Your task to perform on an android device: turn on improve location accuracy Image 0: 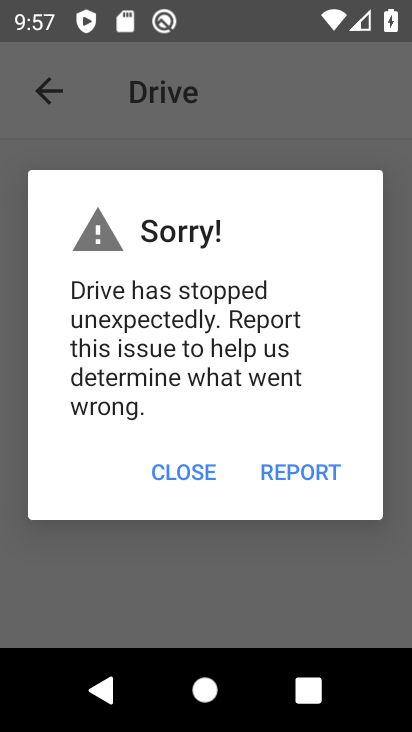
Step 0: press home button
Your task to perform on an android device: turn on improve location accuracy Image 1: 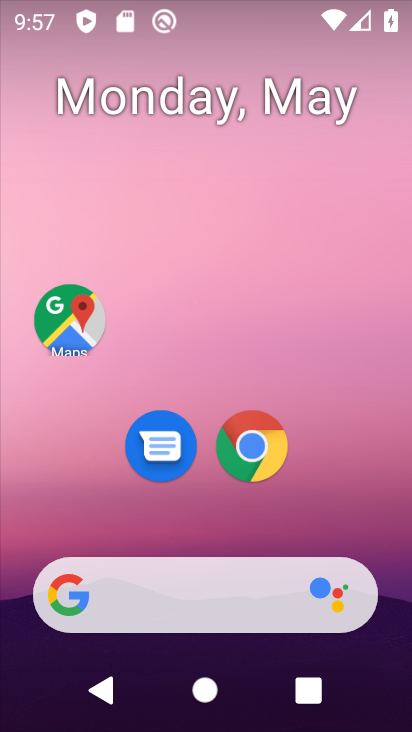
Step 1: drag from (382, 498) to (338, 171)
Your task to perform on an android device: turn on improve location accuracy Image 2: 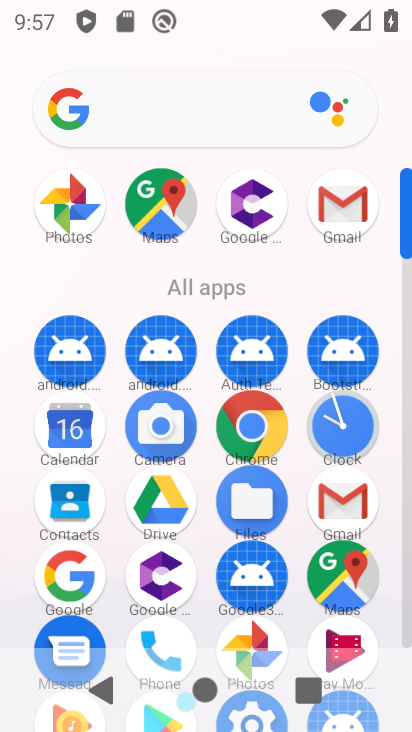
Step 2: drag from (281, 296) to (252, 103)
Your task to perform on an android device: turn on improve location accuracy Image 3: 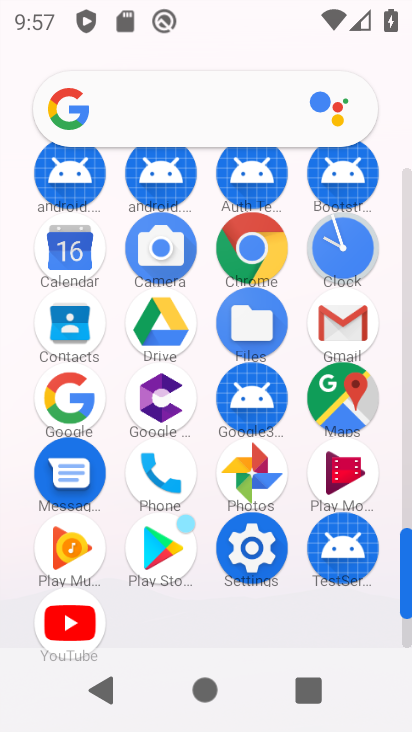
Step 3: click (246, 548)
Your task to perform on an android device: turn on improve location accuracy Image 4: 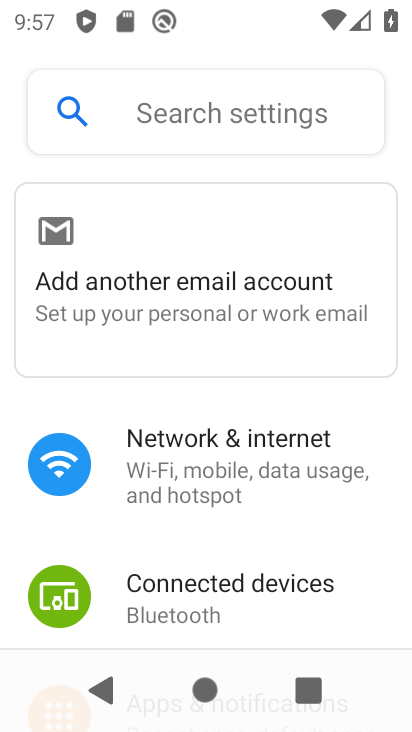
Step 4: drag from (263, 570) to (216, 297)
Your task to perform on an android device: turn on improve location accuracy Image 5: 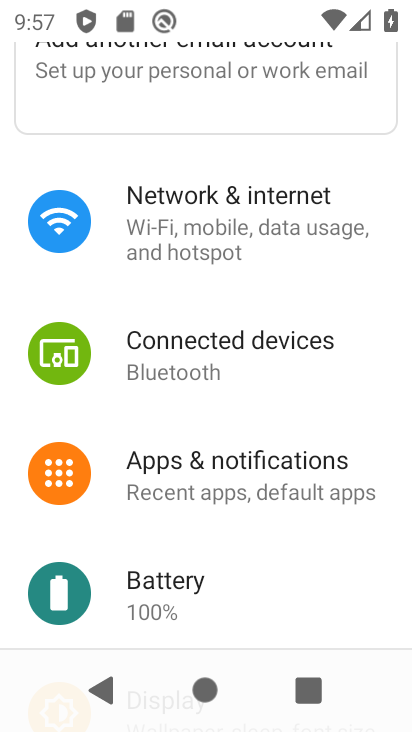
Step 5: drag from (257, 530) to (212, 102)
Your task to perform on an android device: turn on improve location accuracy Image 6: 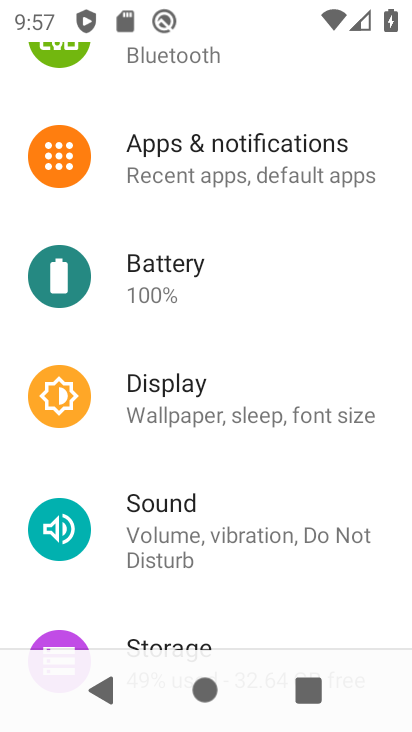
Step 6: drag from (292, 594) to (280, 373)
Your task to perform on an android device: turn on improve location accuracy Image 7: 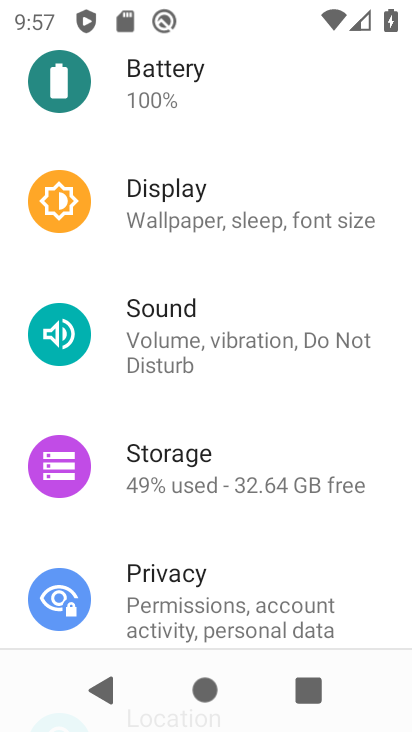
Step 7: click (305, 587)
Your task to perform on an android device: turn on improve location accuracy Image 8: 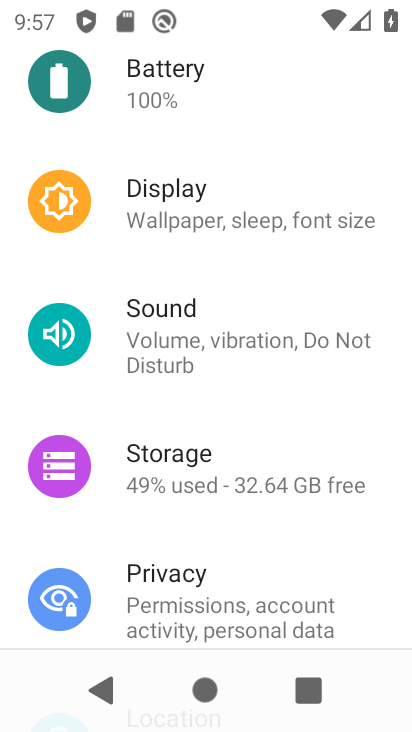
Step 8: drag from (305, 587) to (237, 283)
Your task to perform on an android device: turn on improve location accuracy Image 9: 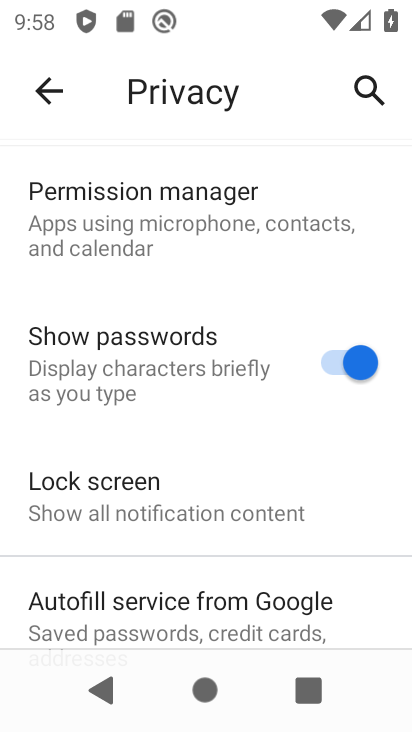
Step 9: click (41, 85)
Your task to perform on an android device: turn on improve location accuracy Image 10: 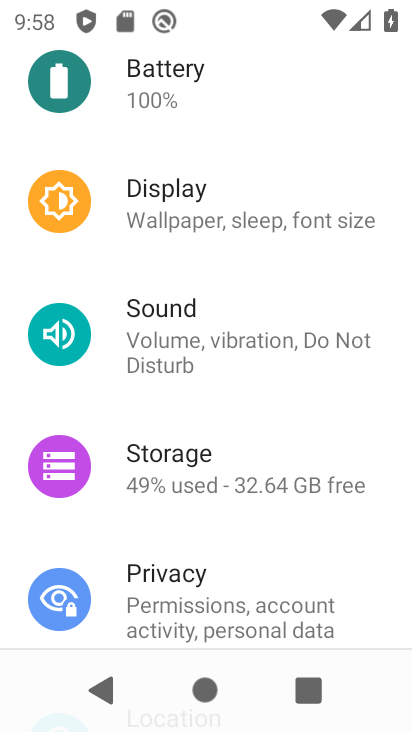
Step 10: drag from (313, 544) to (277, 229)
Your task to perform on an android device: turn on improve location accuracy Image 11: 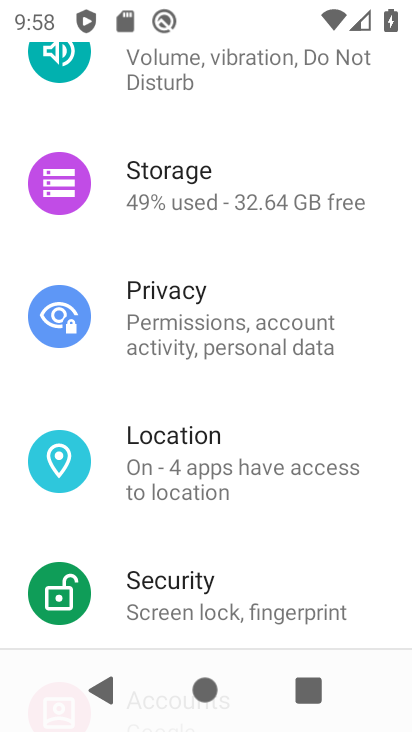
Step 11: click (245, 475)
Your task to perform on an android device: turn on improve location accuracy Image 12: 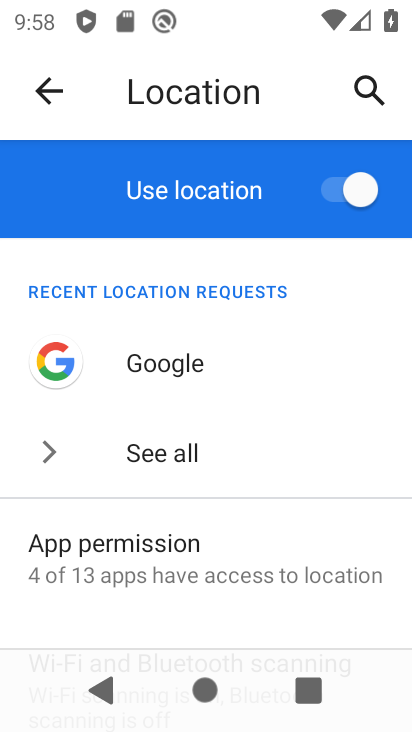
Step 12: drag from (265, 533) to (262, 232)
Your task to perform on an android device: turn on improve location accuracy Image 13: 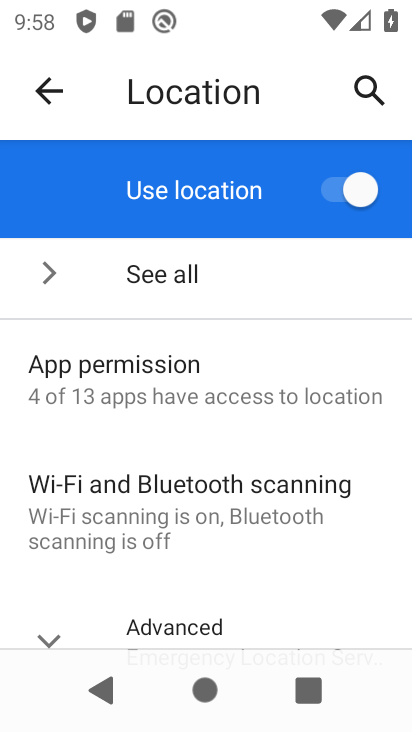
Step 13: click (229, 615)
Your task to perform on an android device: turn on improve location accuracy Image 14: 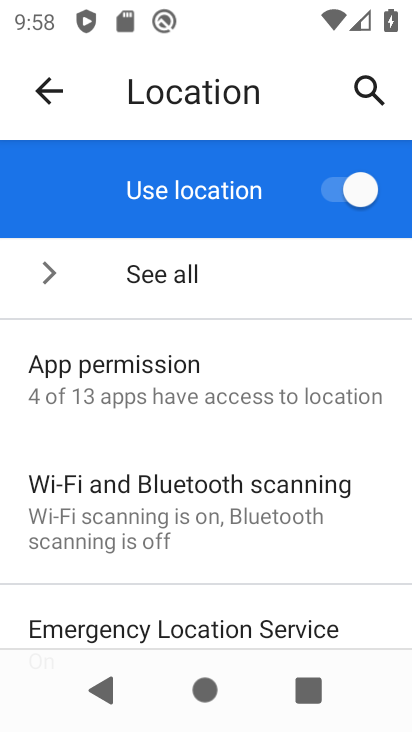
Step 14: drag from (280, 605) to (263, 337)
Your task to perform on an android device: turn on improve location accuracy Image 15: 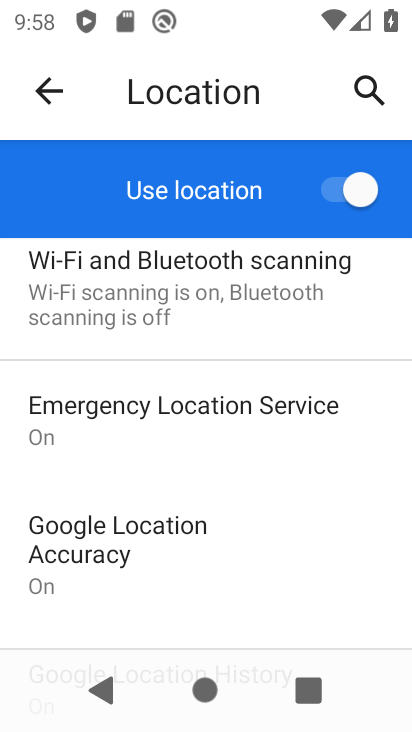
Step 15: click (182, 552)
Your task to perform on an android device: turn on improve location accuracy Image 16: 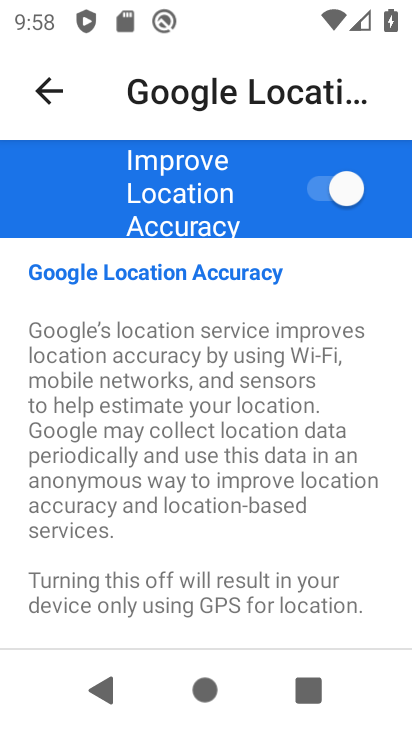
Step 16: task complete